Your task to perform on an android device: Check my email inbox Image 0: 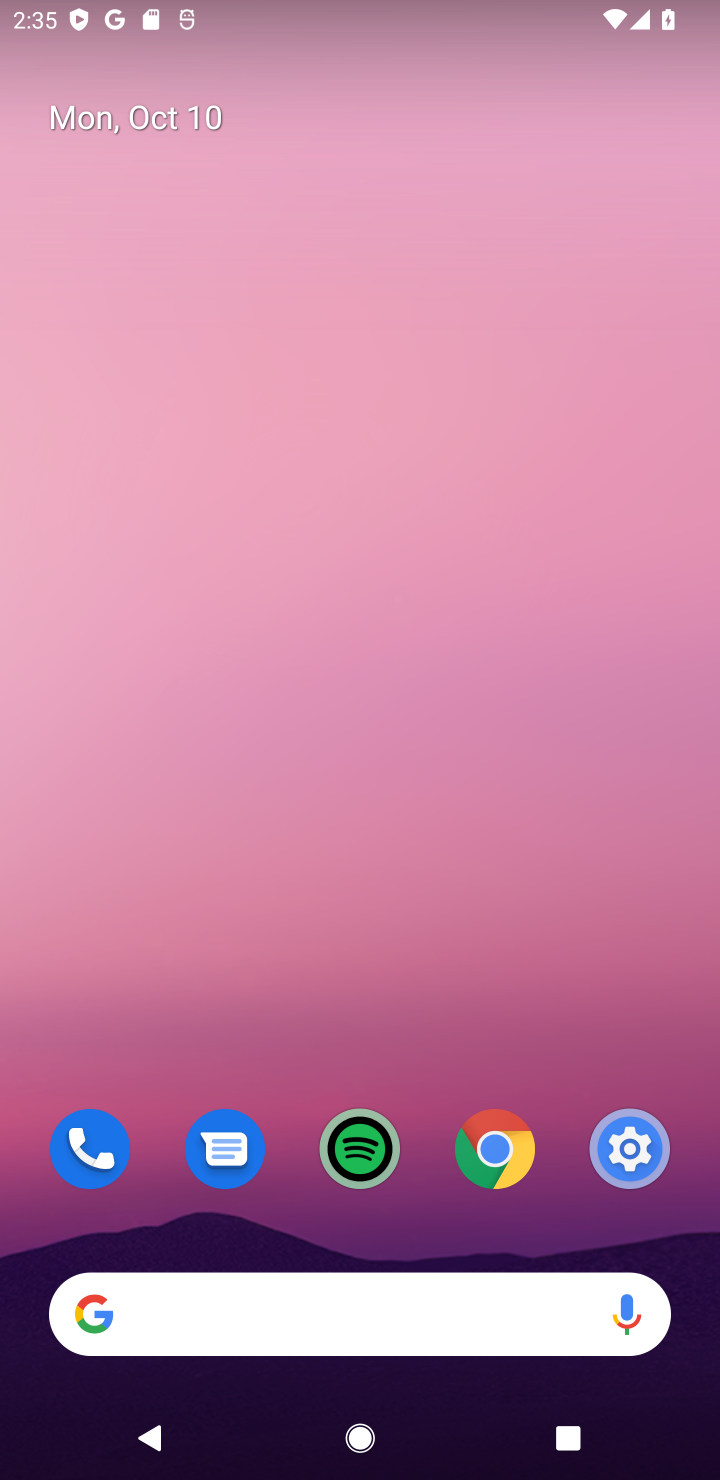
Step 0: click (425, 859)
Your task to perform on an android device: Check my email inbox Image 1: 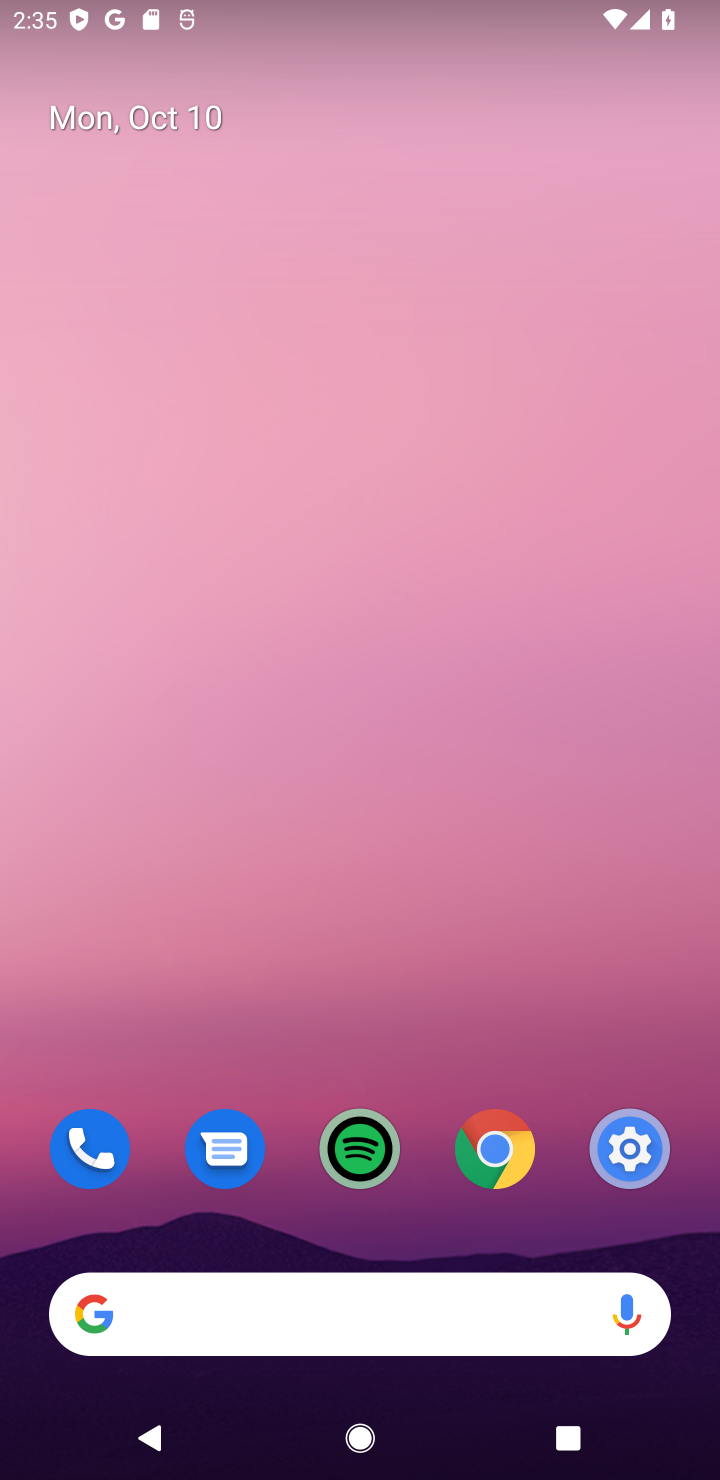
Step 1: drag from (382, 1241) to (434, 0)
Your task to perform on an android device: Check my email inbox Image 2: 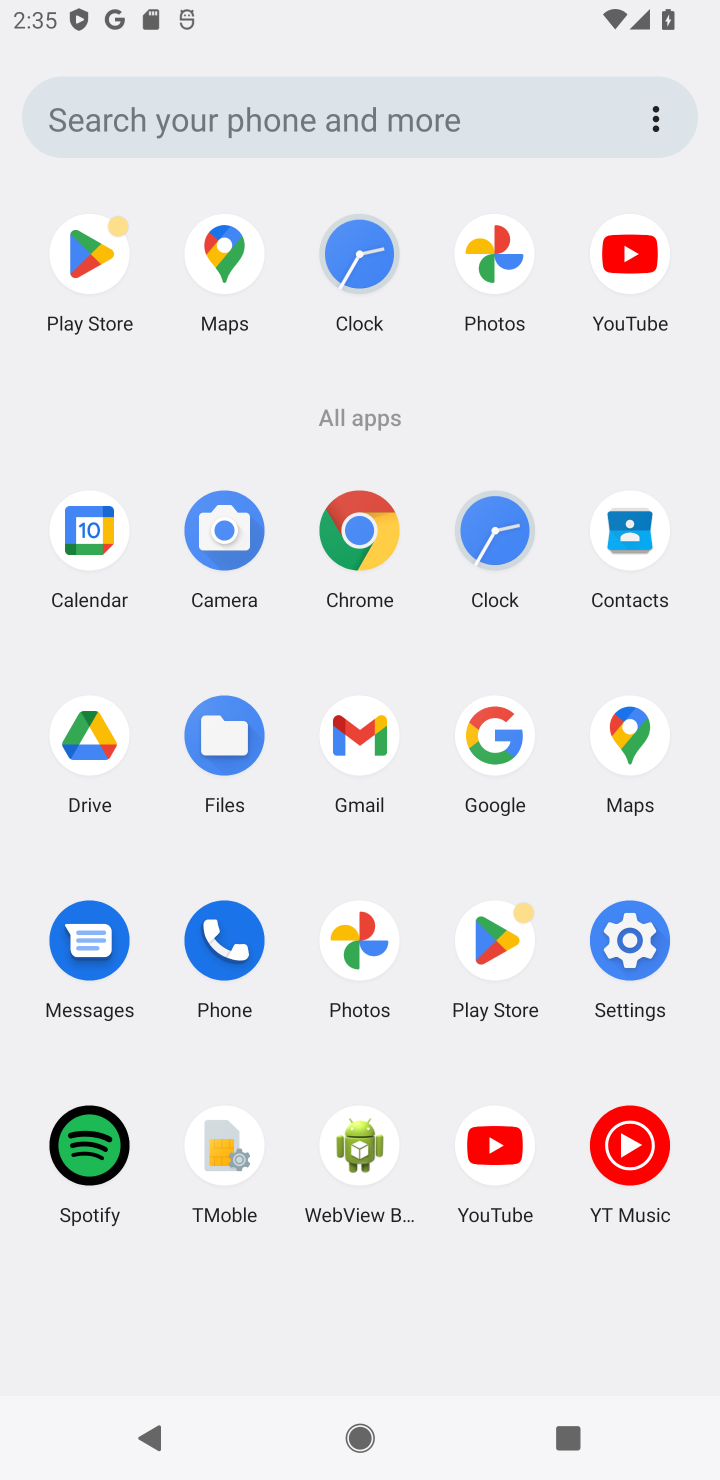
Step 2: click (350, 767)
Your task to perform on an android device: Check my email inbox Image 3: 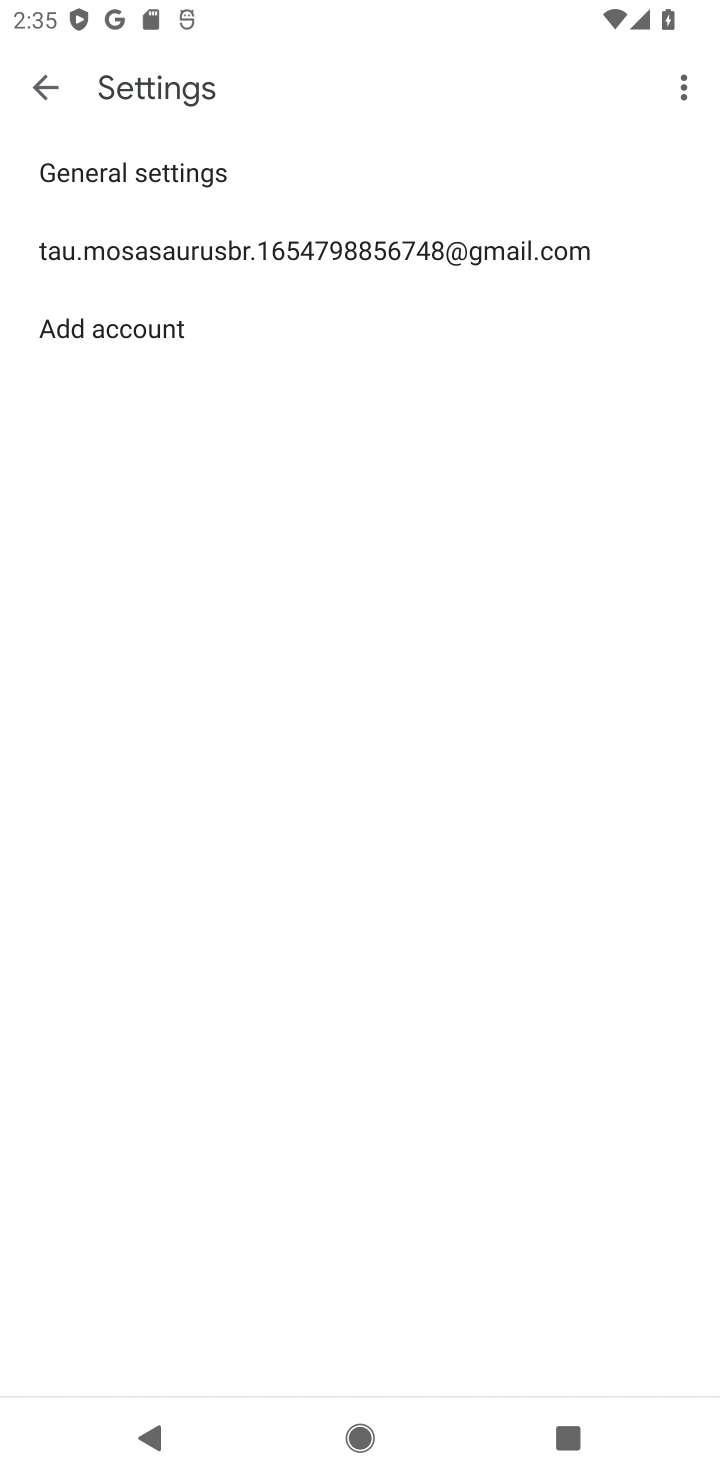
Step 3: click (42, 91)
Your task to perform on an android device: Check my email inbox Image 4: 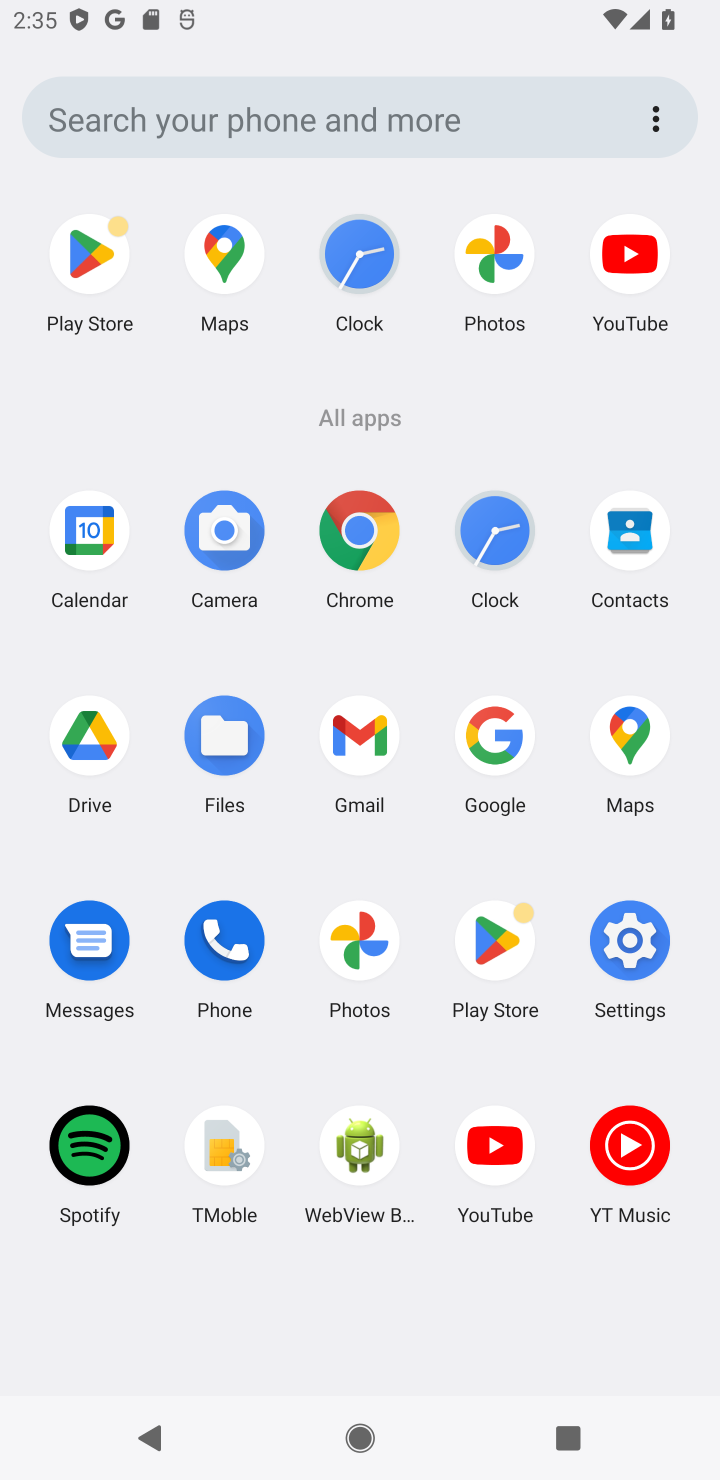
Step 4: click (390, 731)
Your task to perform on an android device: Check my email inbox Image 5: 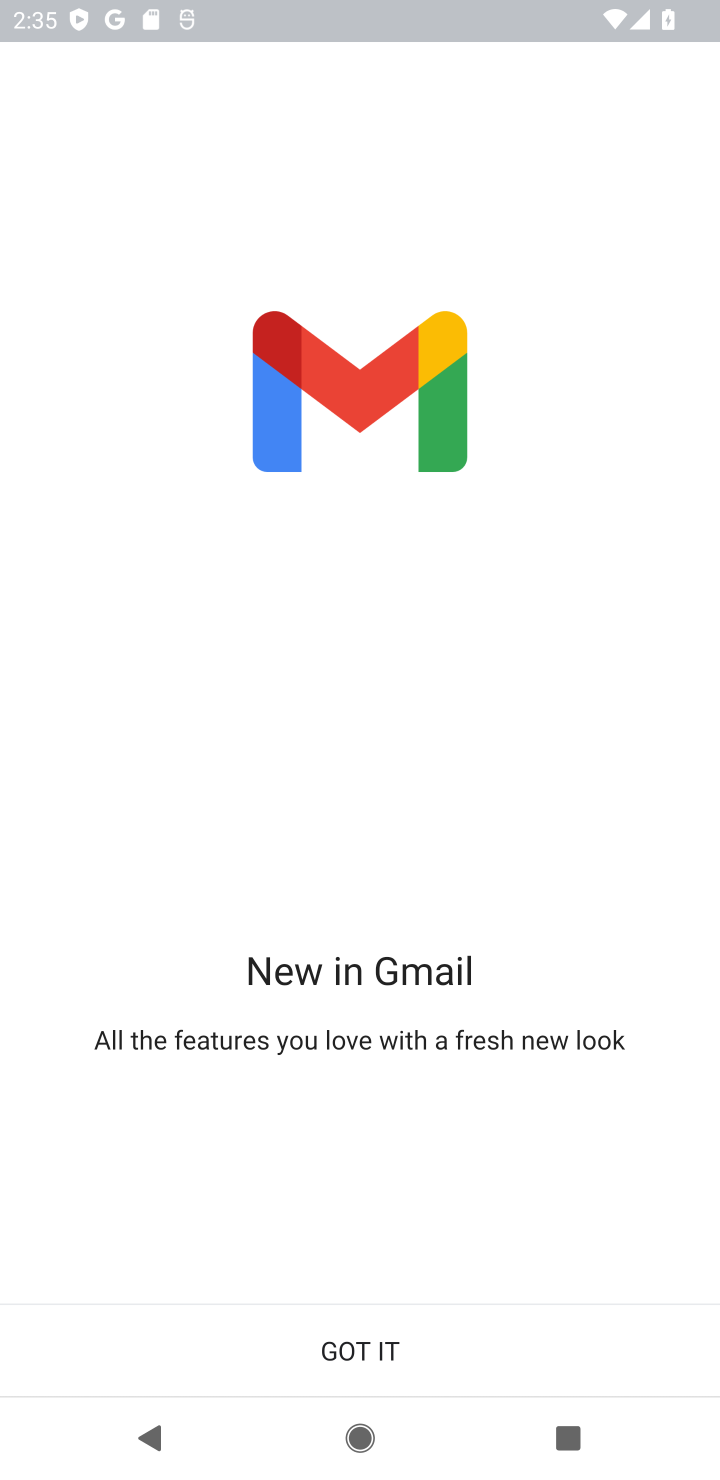
Step 5: click (358, 1332)
Your task to perform on an android device: Check my email inbox Image 6: 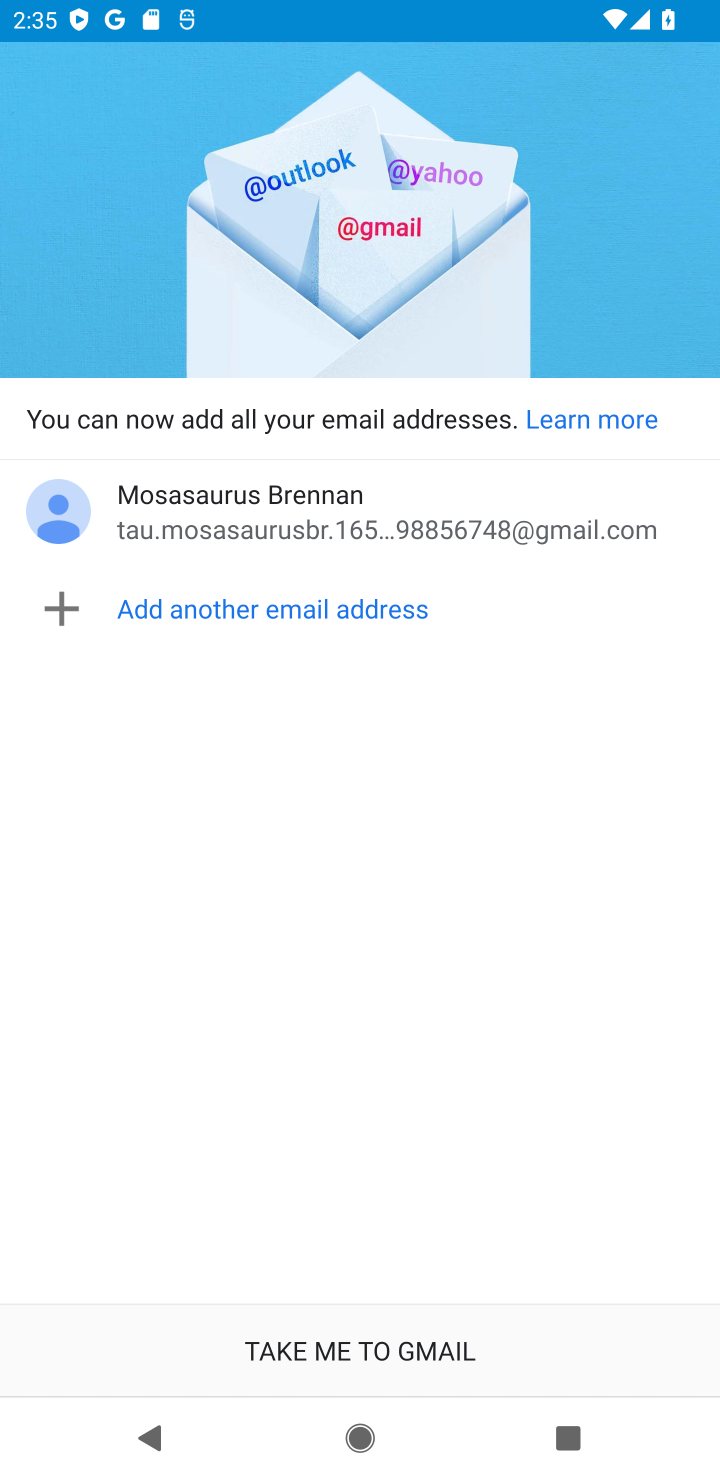
Step 6: click (365, 1335)
Your task to perform on an android device: Check my email inbox Image 7: 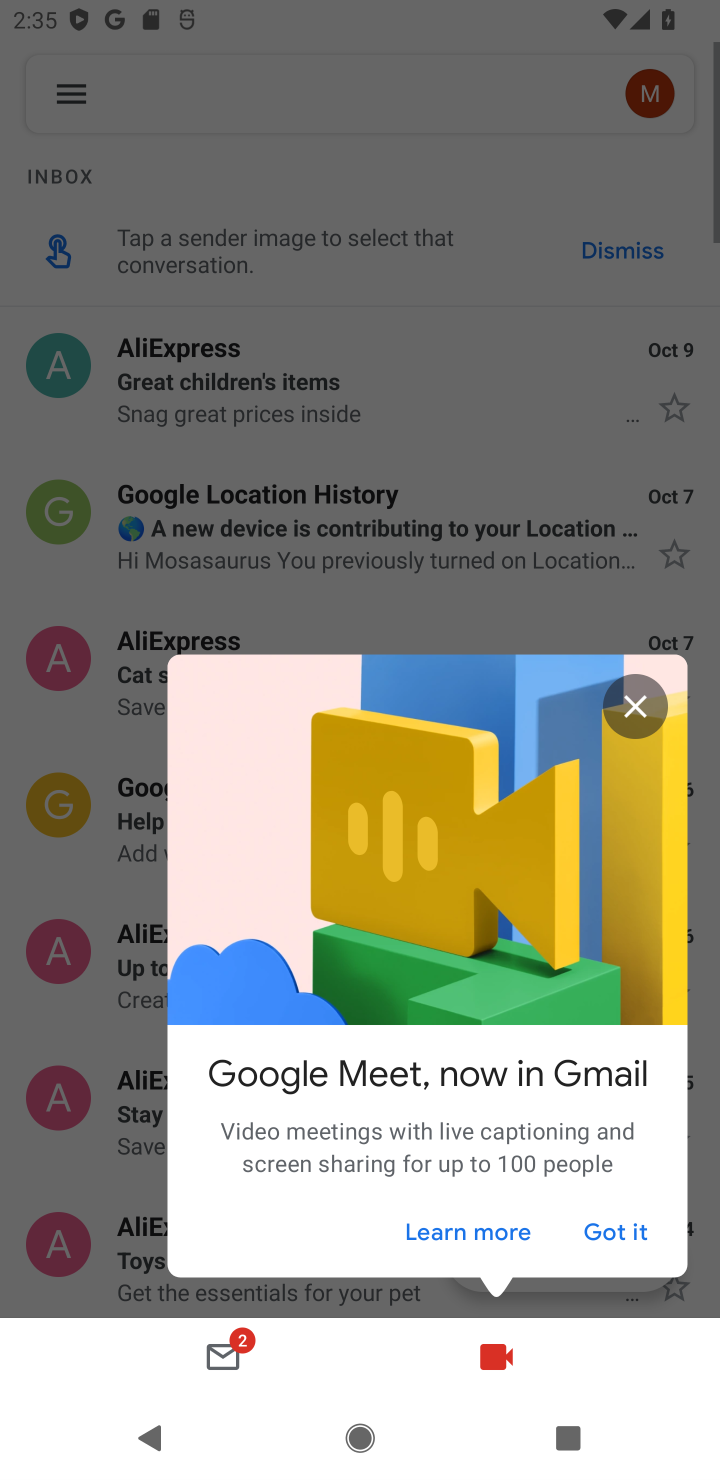
Step 7: click (629, 1226)
Your task to perform on an android device: Check my email inbox Image 8: 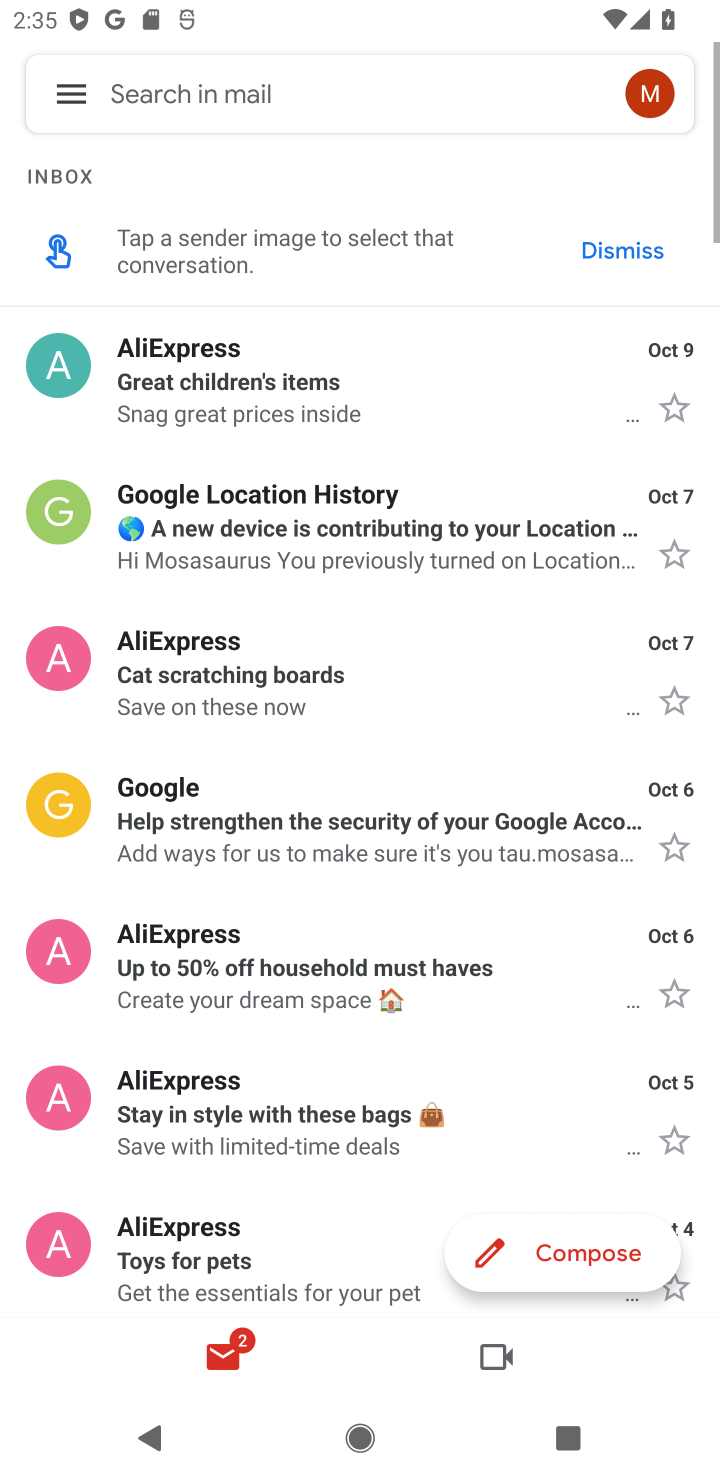
Step 8: task complete